Your task to perform on an android device: open sync settings in chrome Image 0: 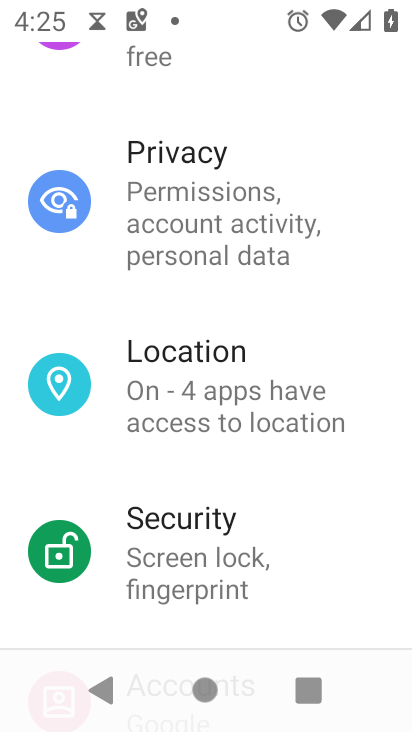
Step 0: press home button
Your task to perform on an android device: open sync settings in chrome Image 1: 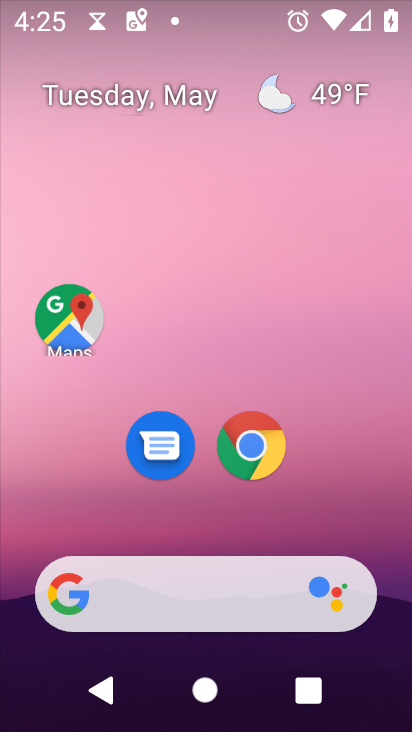
Step 1: drag from (306, 421) to (334, 13)
Your task to perform on an android device: open sync settings in chrome Image 2: 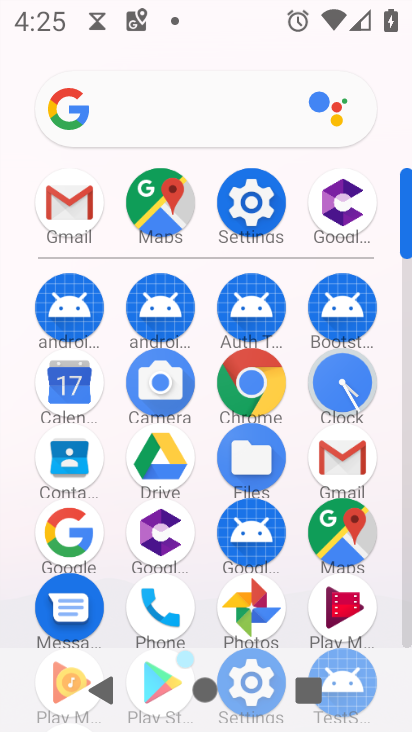
Step 2: click (238, 383)
Your task to perform on an android device: open sync settings in chrome Image 3: 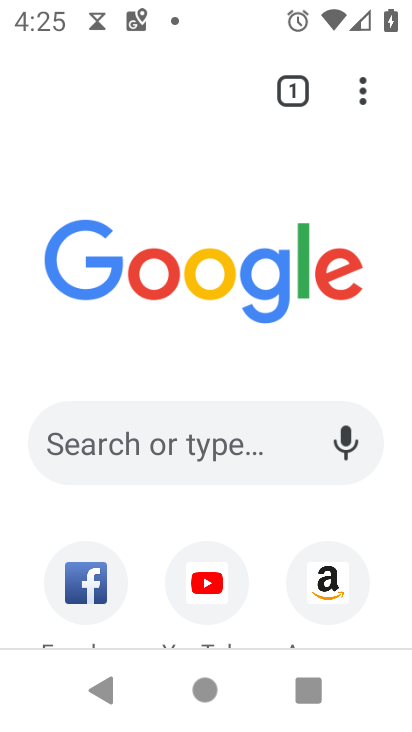
Step 3: click (362, 88)
Your task to perform on an android device: open sync settings in chrome Image 4: 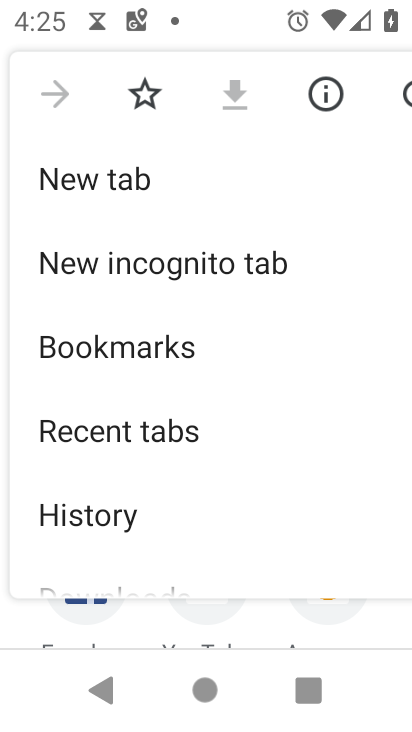
Step 4: drag from (270, 518) to (274, 109)
Your task to perform on an android device: open sync settings in chrome Image 5: 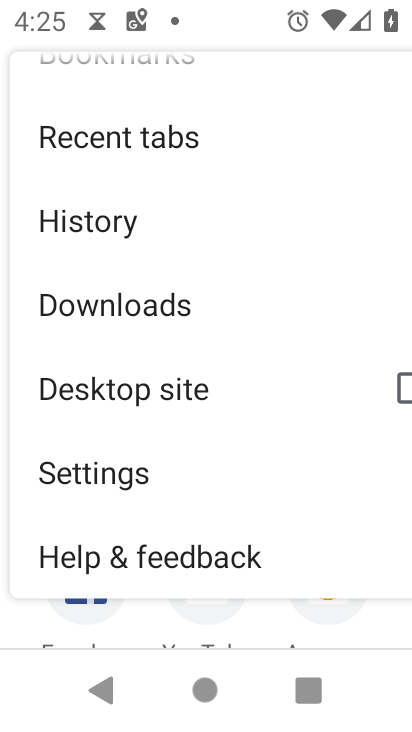
Step 5: click (195, 480)
Your task to perform on an android device: open sync settings in chrome Image 6: 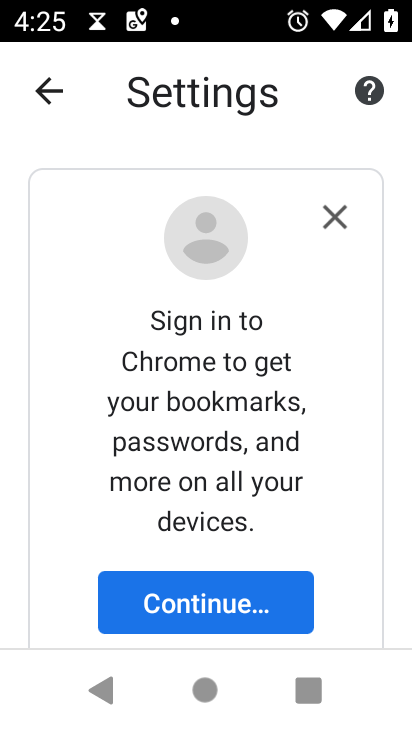
Step 6: drag from (322, 652) to (346, 208)
Your task to perform on an android device: open sync settings in chrome Image 7: 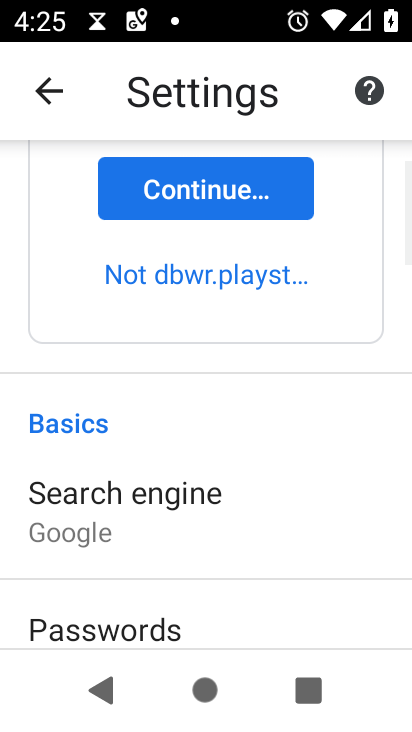
Step 7: drag from (314, 559) to (301, 253)
Your task to perform on an android device: open sync settings in chrome Image 8: 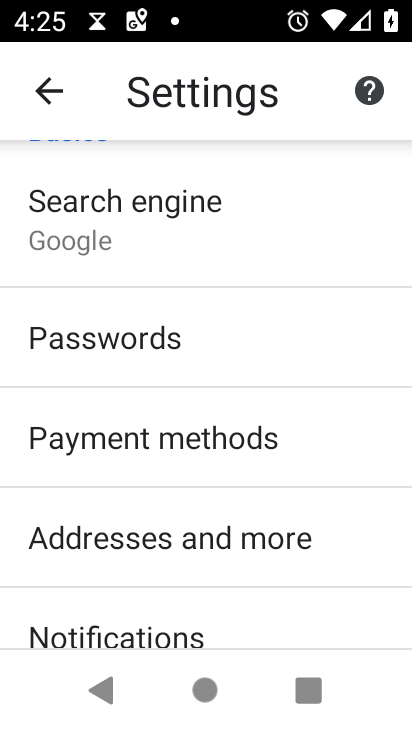
Step 8: drag from (285, 608) to (299, 233)
Your task to perform on an android device: open sync settings in chrome Image 9: 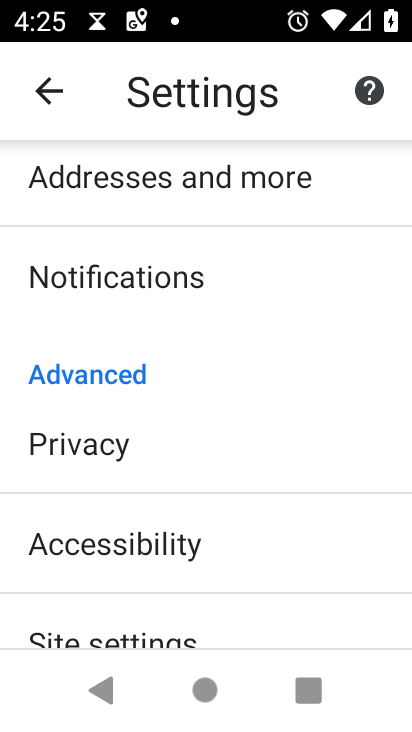
Step 9: click (197, 622)
Your task to perform on an android device: open sync settings in chrome Image 10: 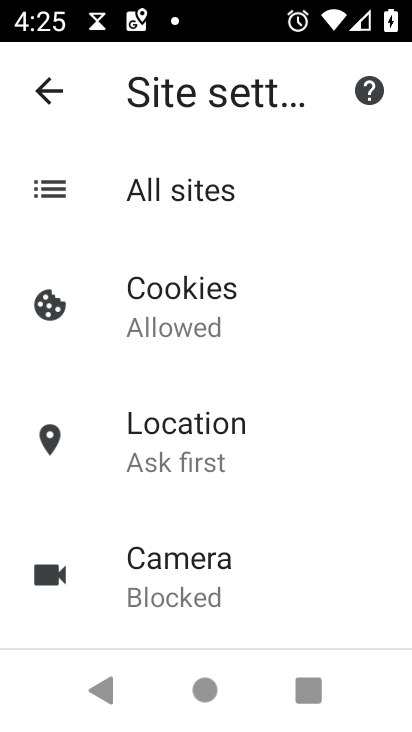
Step 10: drag from (310, 598) to (360, 141)
Your task to perform on an android device: open sync settings in chrome Image 11: 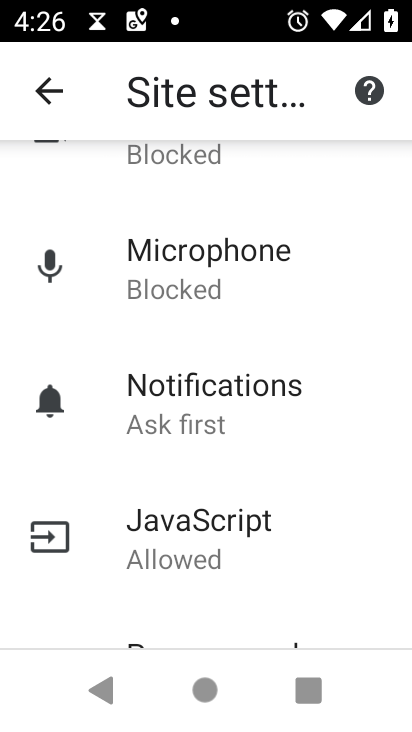
Step 11: drag from (328, 562) to (321, 161)
Your task to perform on an android device: open sync settings in chrome Image 12: 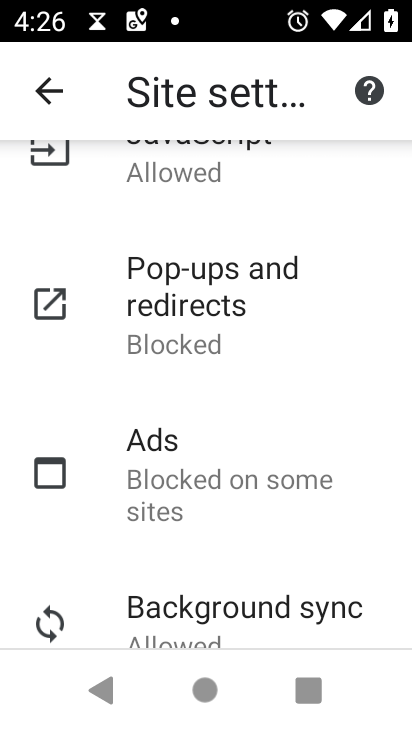
Step 12: click (251, 605)
Your task to perform on an android device: open sync settings in chrome Image 13: 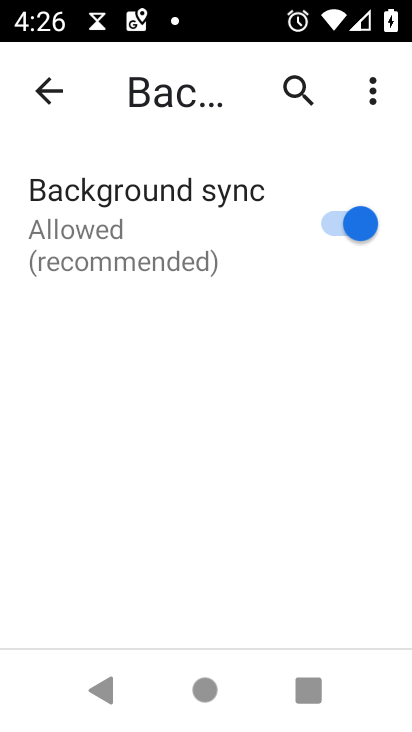
Step 13: task complete